Your task to perform on an android device: change notification settings in the gmail app Image 0: 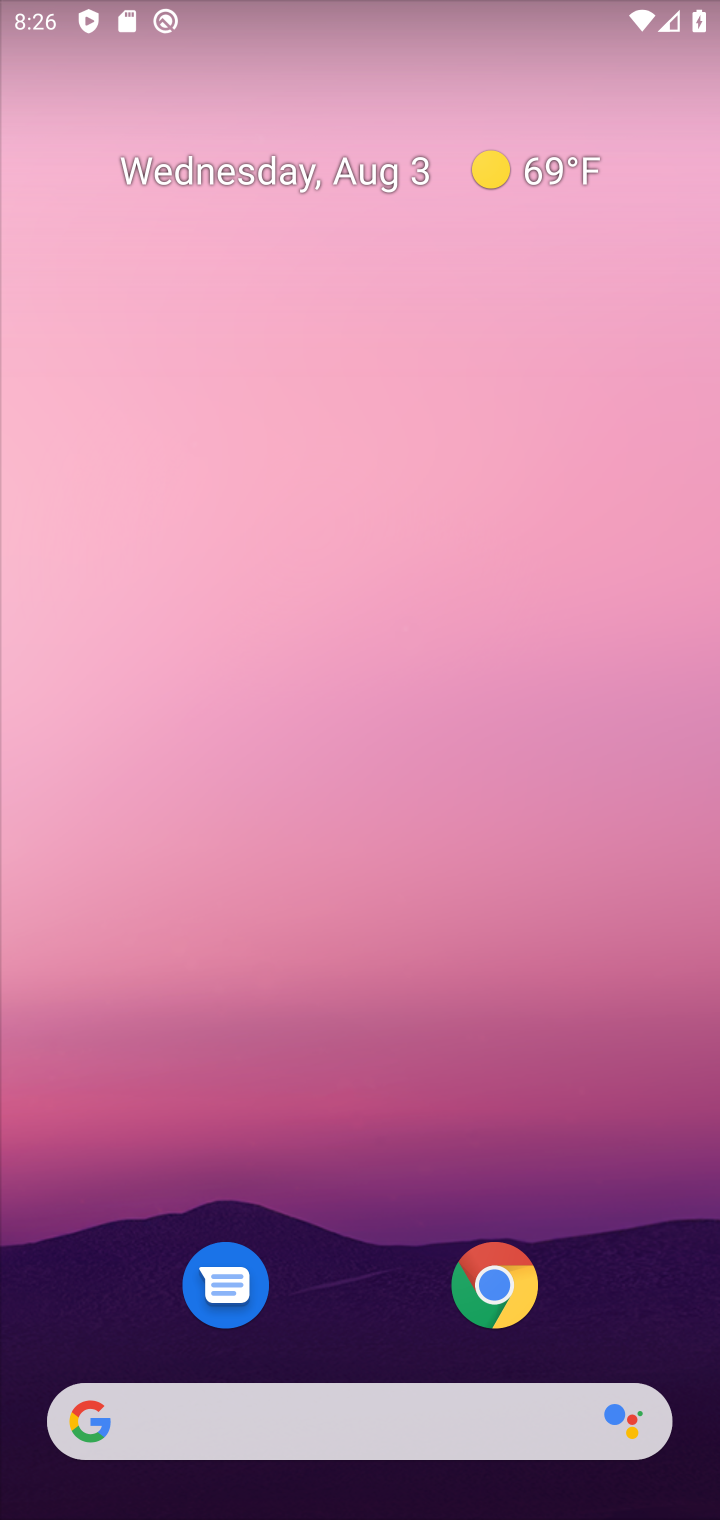
Step 0: press home button
Your task to perform on an android device: change notification settings in the gmail app Image 1: 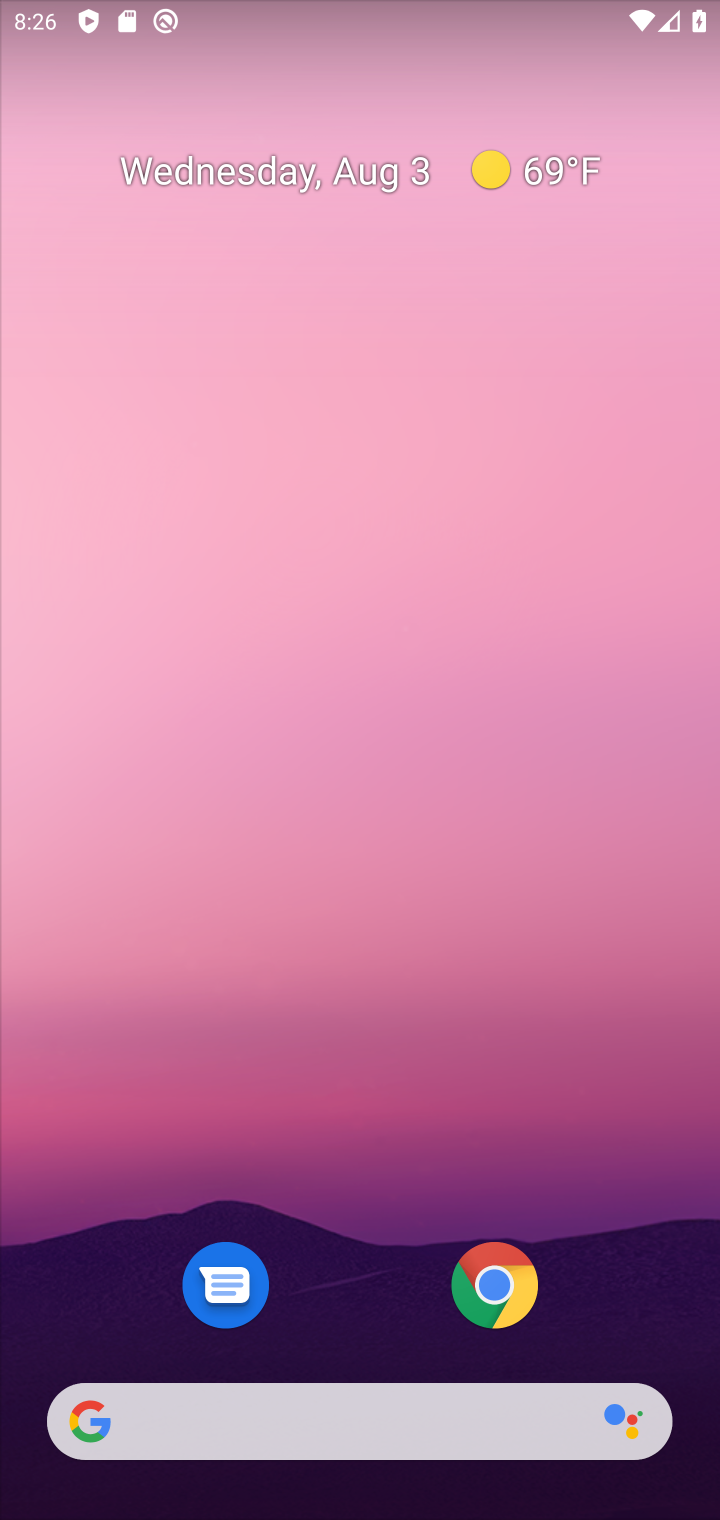
Step 1: drag from (614, 1225) to (554, 432)
Your task to perform on an android device: change notification settings in the gmail app Image 2: 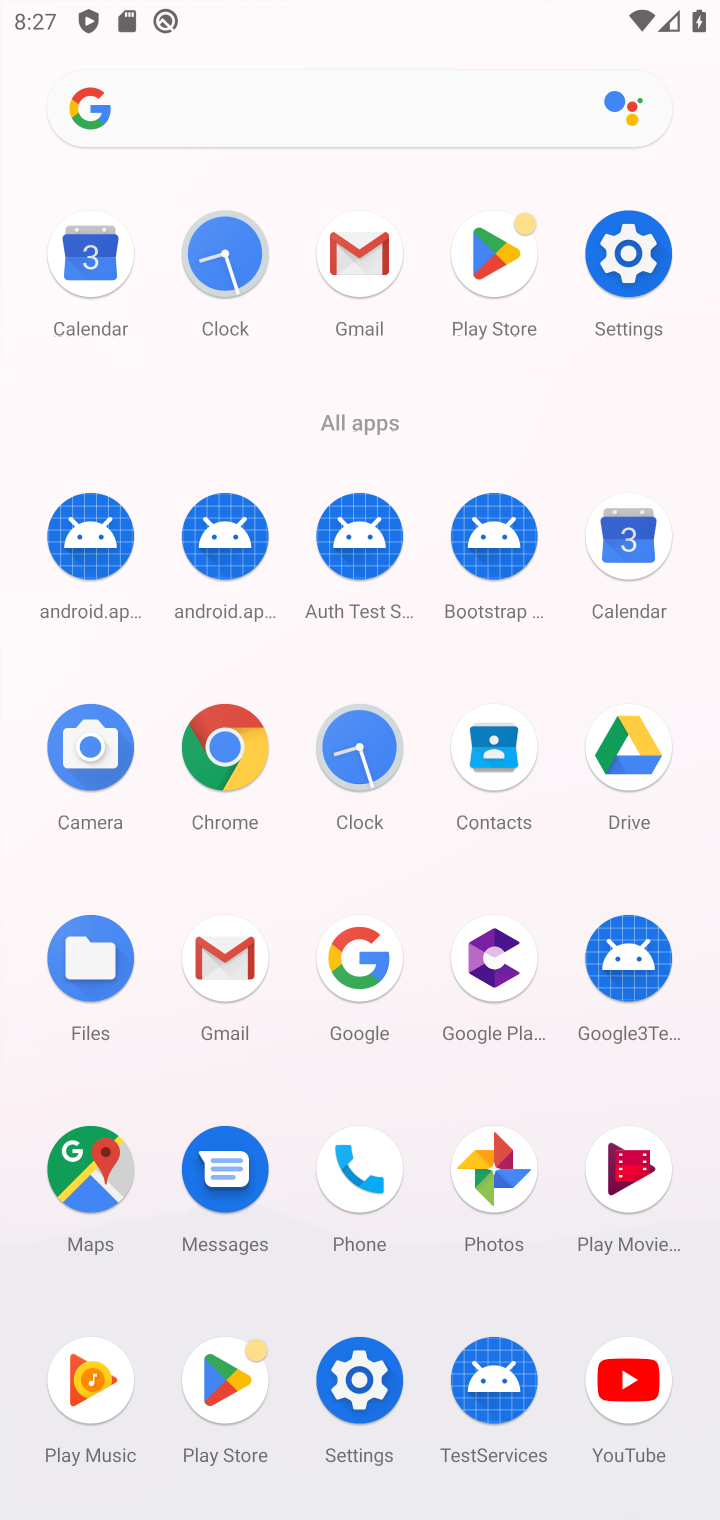
Step 2: click (236, 958)
Your task to perform on an android device: change notification settings in the gmail app Image 3: 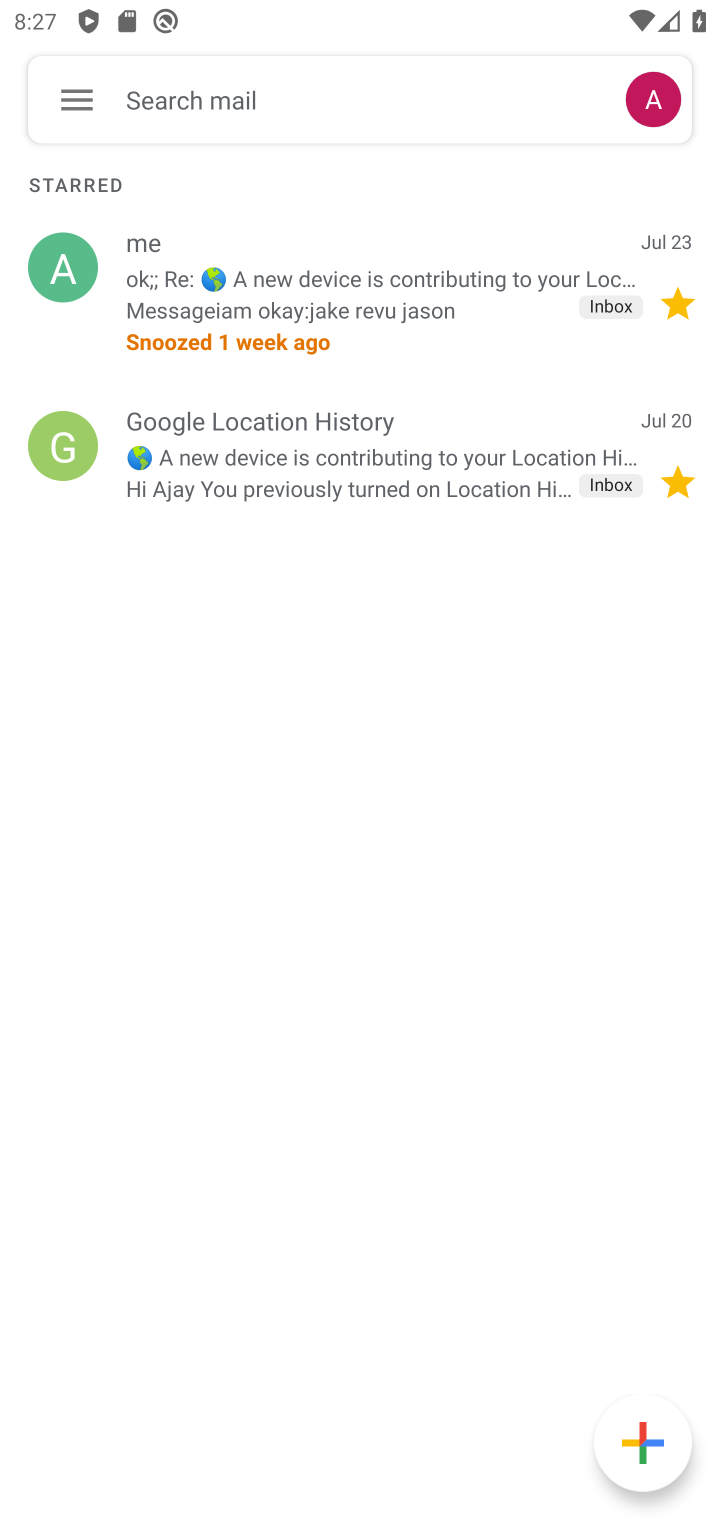
Step 3: click (87, 101)
Your task to perform on an android device: change notification settings in the gmail app Image 4: 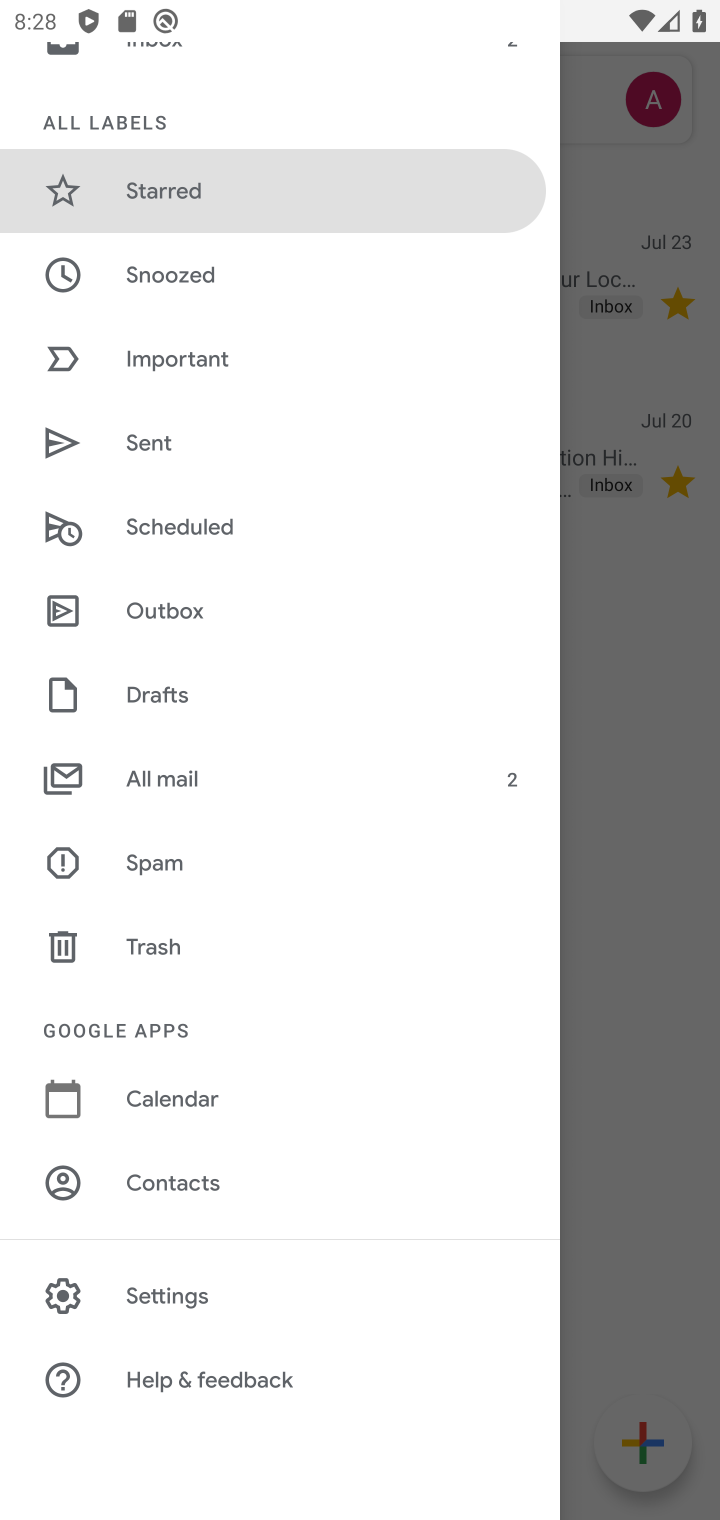
Step 4: click (180, 1302)
Your task to perform on an android device: change notification settings in the gmail app Image 5: 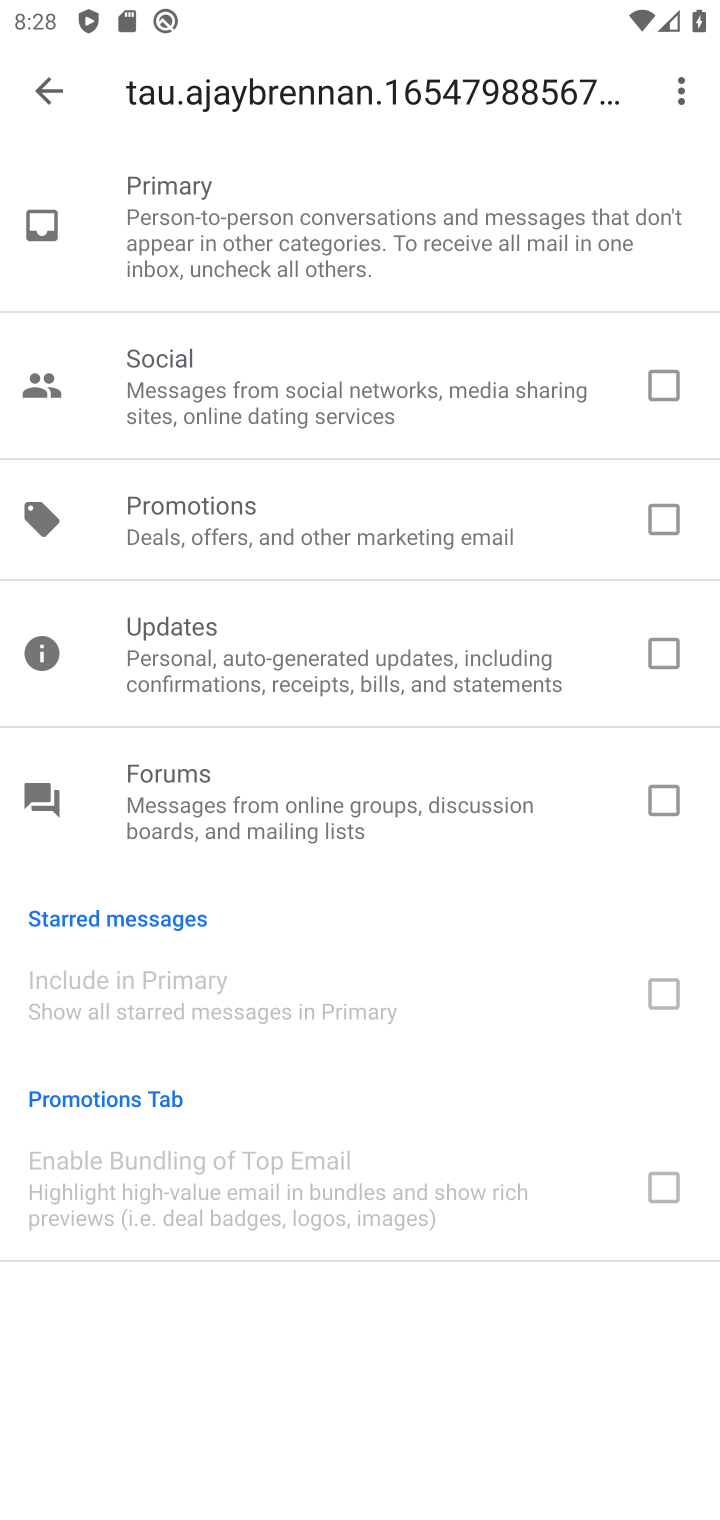
Step 5: click (52, 90)
Your task to perform on an android device: change notification settings in the gmail app Image 6: 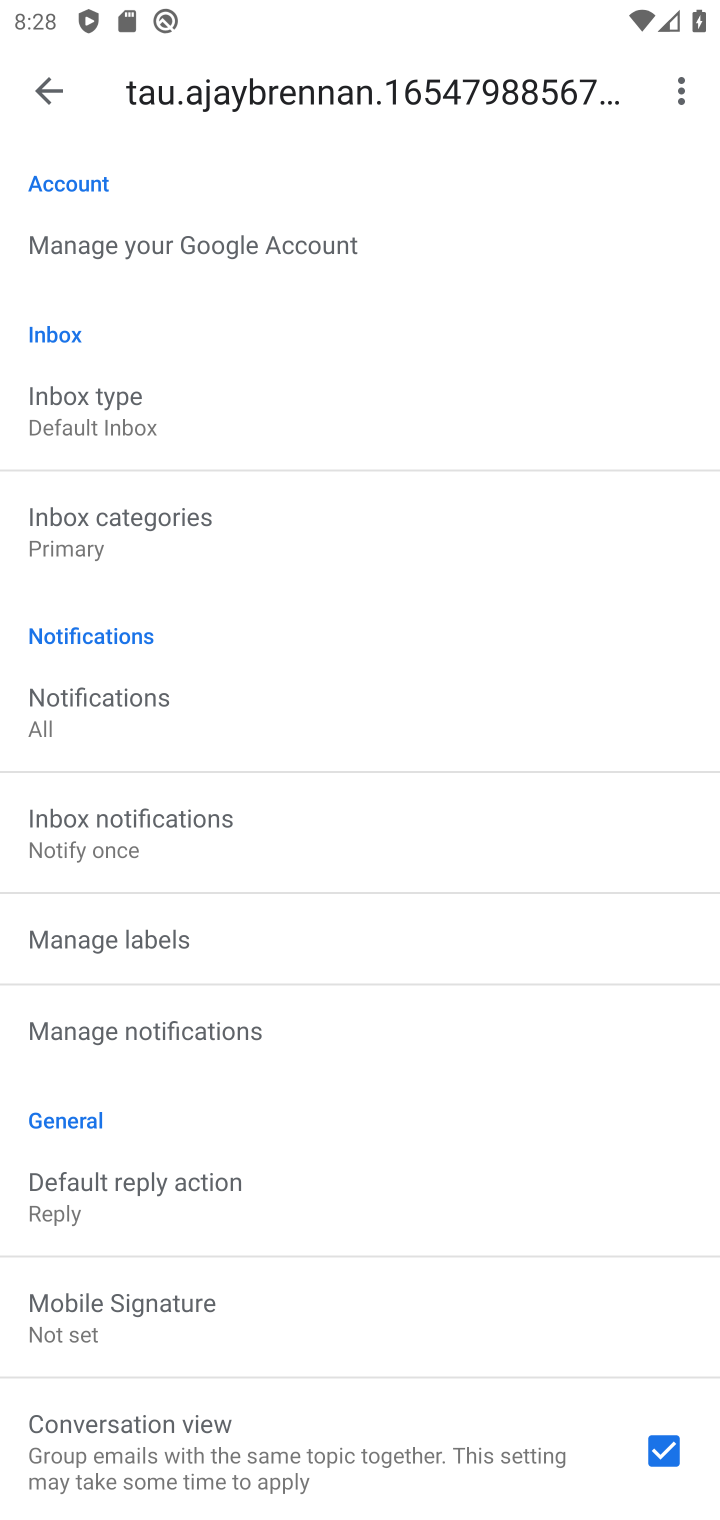
Step 6: click (196, 691)
Your task to perform on an android device: change notification settings in the gmail app Image 7: 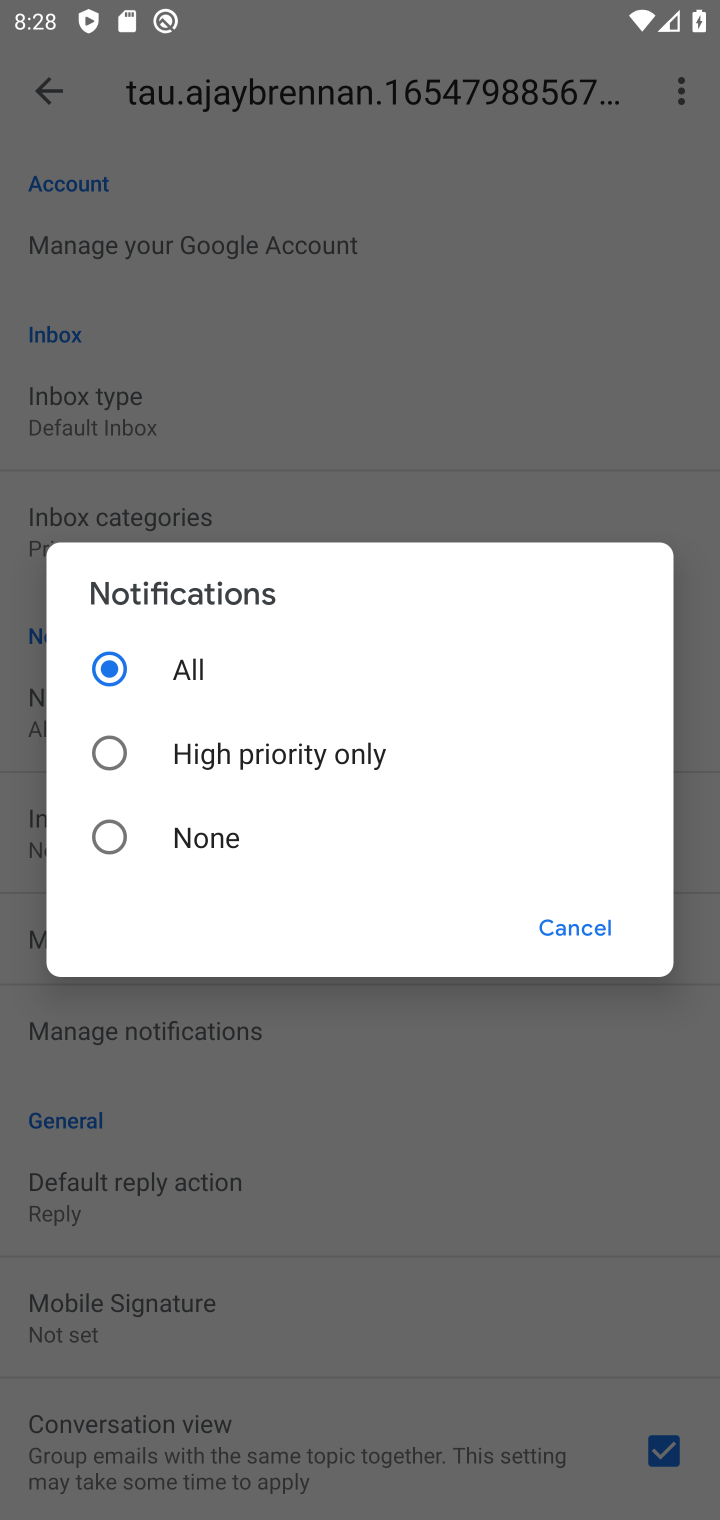
Step 7: click (190, 835)
Your task to perform on an android device: change notification settings in the gmail app Image 8: 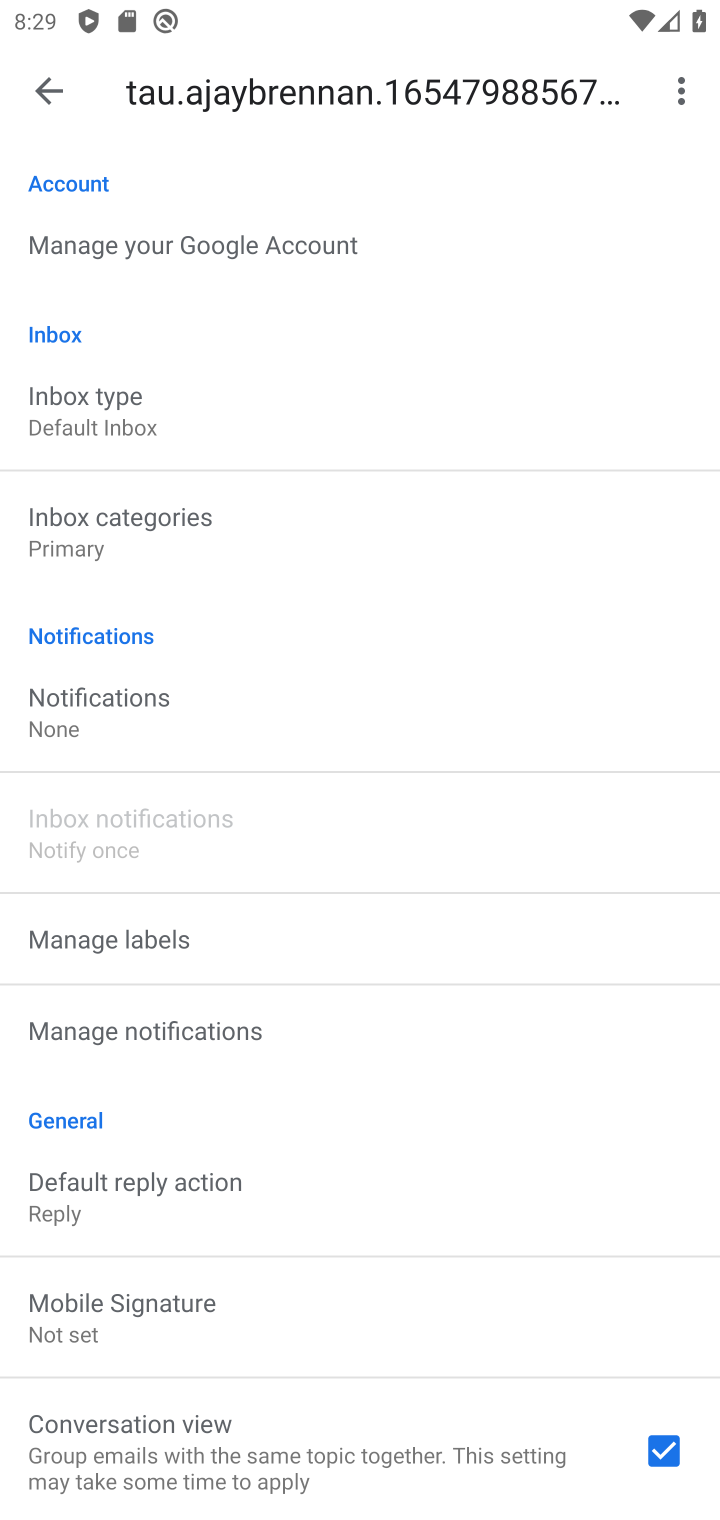
Step 8: task complete